Your task to perform on an android device: turn off javascript in the chrome app Image 0: 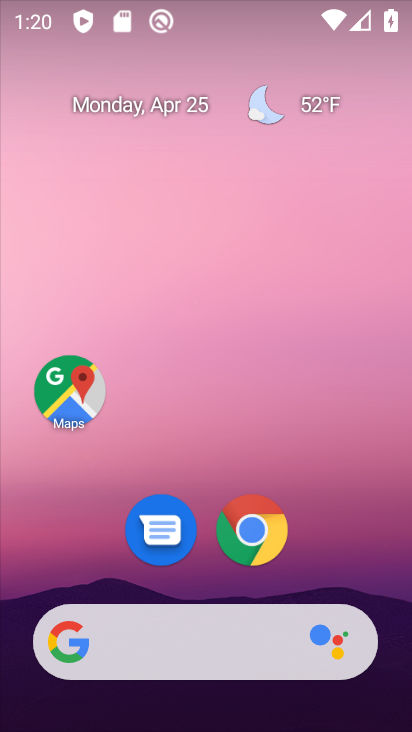
Step 0: drag from (342, 544) to (358, 139)
Your task to perform on an android device: turn off javascript in the chrome app Image 1: 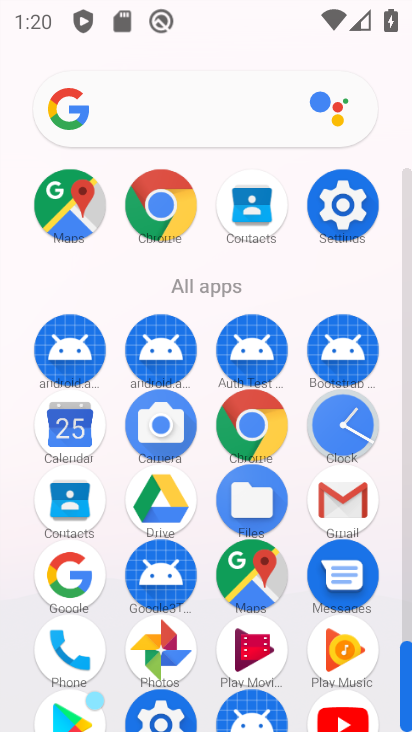
Step 1: click (263, 430)
Your task to perform on an android device: turn off javascript in the chrome app Image 2: 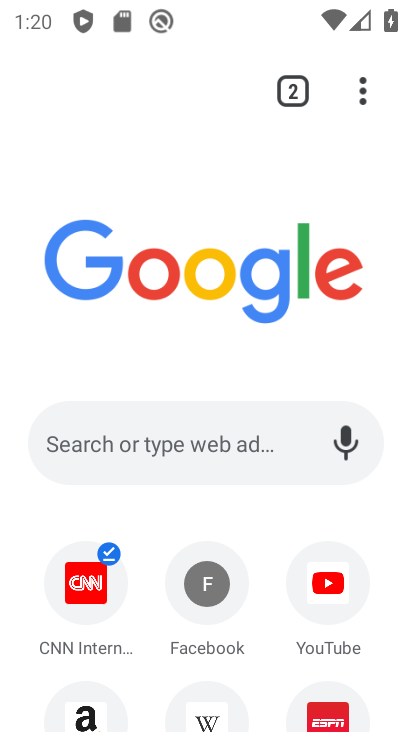
Step 2: drag from (362, 106) to (141, 559)
Your task to perform on an android device: turn off javascript in the chrome app Image 3: 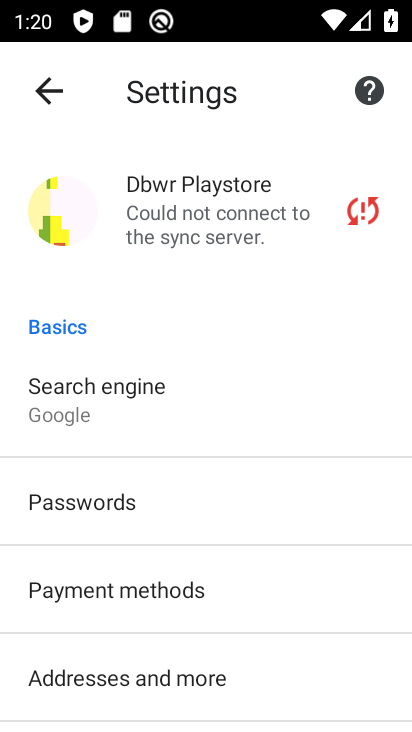
Step 3: drag from (314, 652) to (273, 373)
Your task to perform on an android device: turn off javascript in the chrome app Image 4: 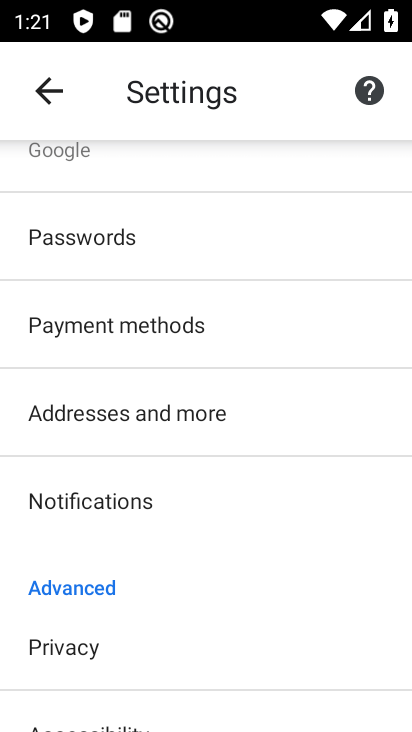
Step 4: drag from (273, 642) to (288, 277)
Your task to perform on an android device: turn off javascript in the chrome app Image 5: 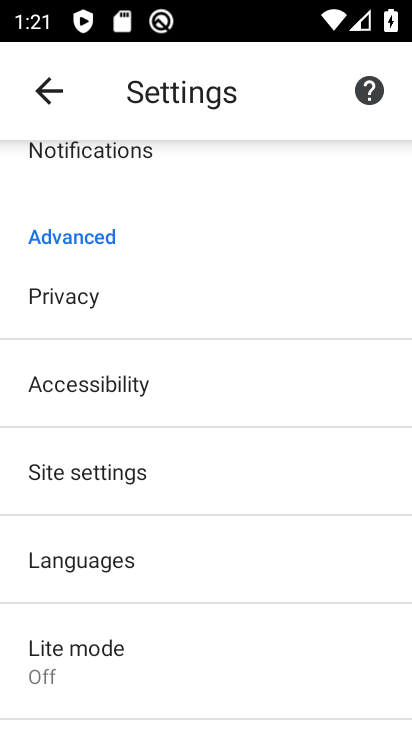
Step 5: click (189, 489)
Your task to perform on an android device: turn off javascript in the chrome app Image 6: 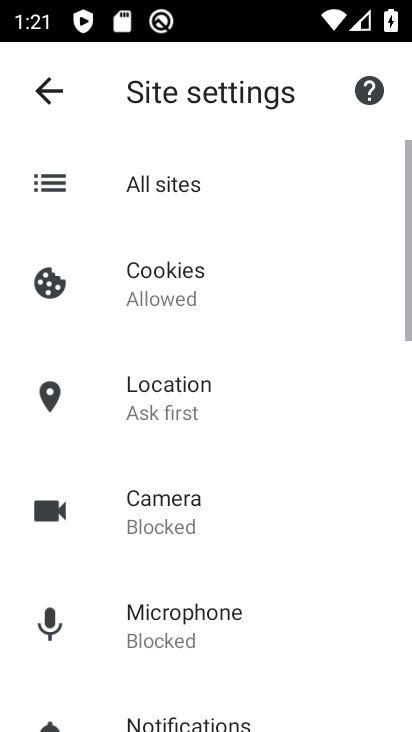
Step 6: drag from (305, 677) to (267, 260)
Your task to perform on an android device: turn off javascript in the chrome app Image 7: 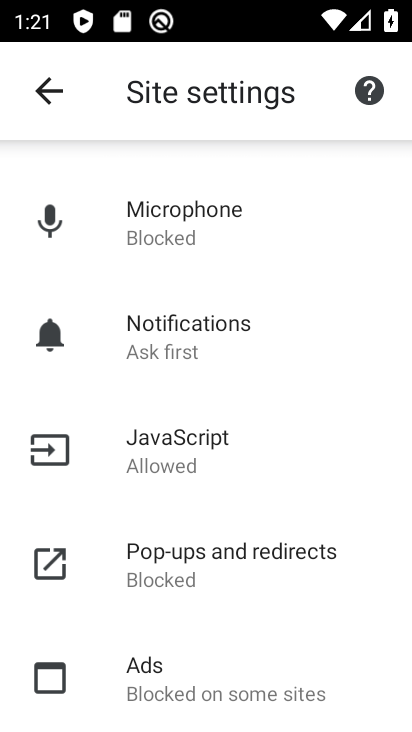
Step 7: click (227, 445)
Your task to perform on an android device: turn off javascript in the chrome app Image 8: 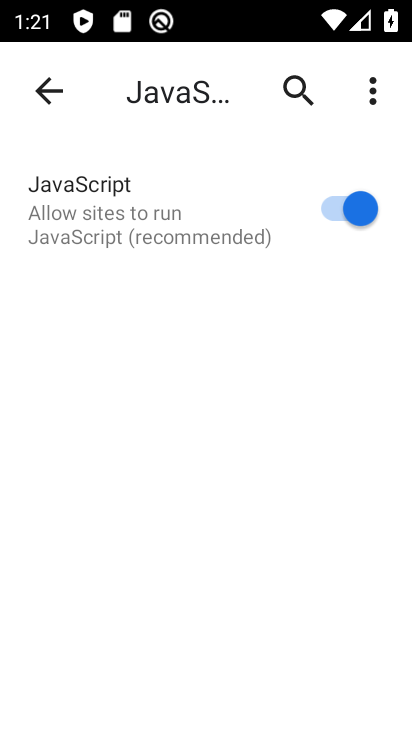
Step 8: click (343, 205)
Your task to perform on an android device: turn off javascript in the chrome app Image 9: 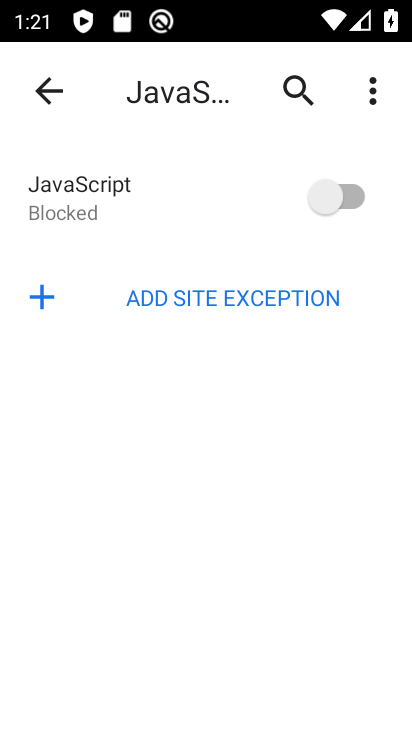
Step 9: task complete